Your task to perform on an android device: open app "Airtel Thanks" (install if not already installed) and enter user name: "acclaimed@inbox.com" and password: "dichotomize" Image 0: 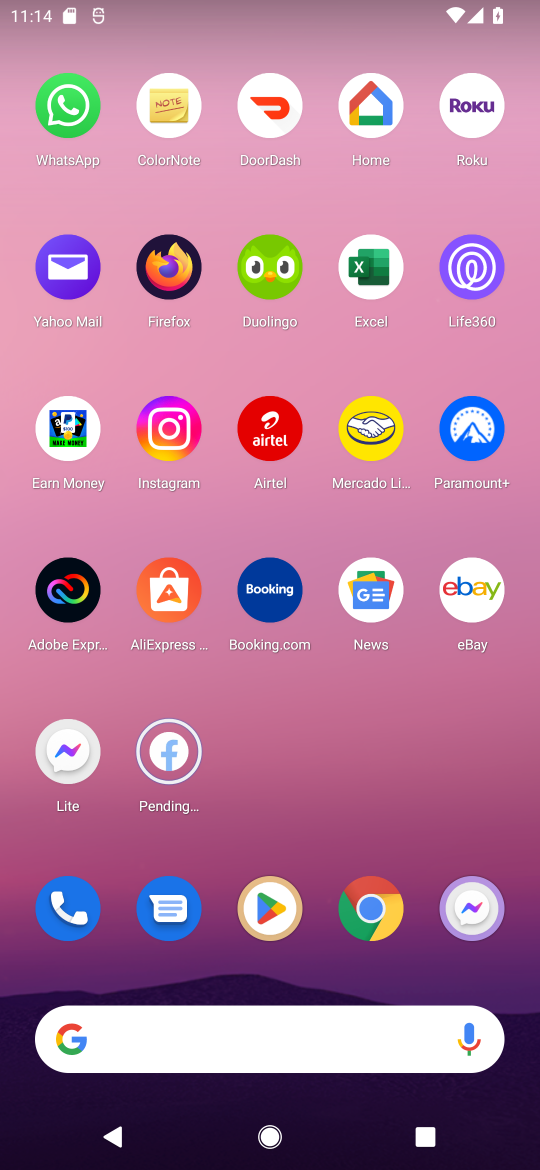
Step 0: click (271, 925)
Your task to perform on an android device: open app "Airtel Thanks" (install if not already installed) and enter user name: "acclaimed@inbox.com" and password: "dichotomize" Image 1: 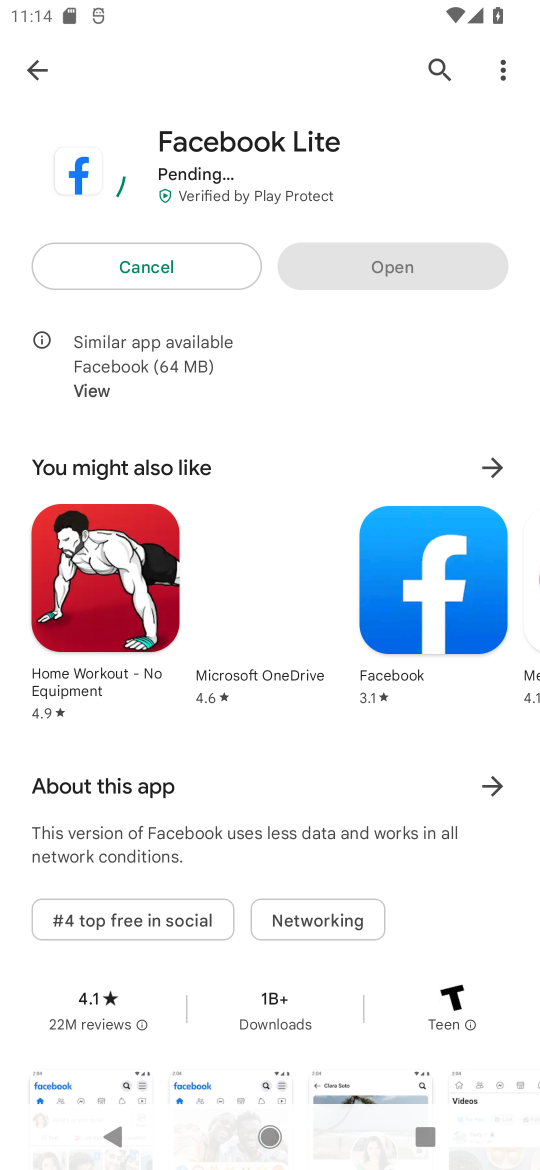
Step 1: press home button
Your task to perform on an android device: open app "Airtel Thanks" (install if not already installed) and enter user name: "acclaimed@inbox.com" and password: "dichotomize" Image 2: 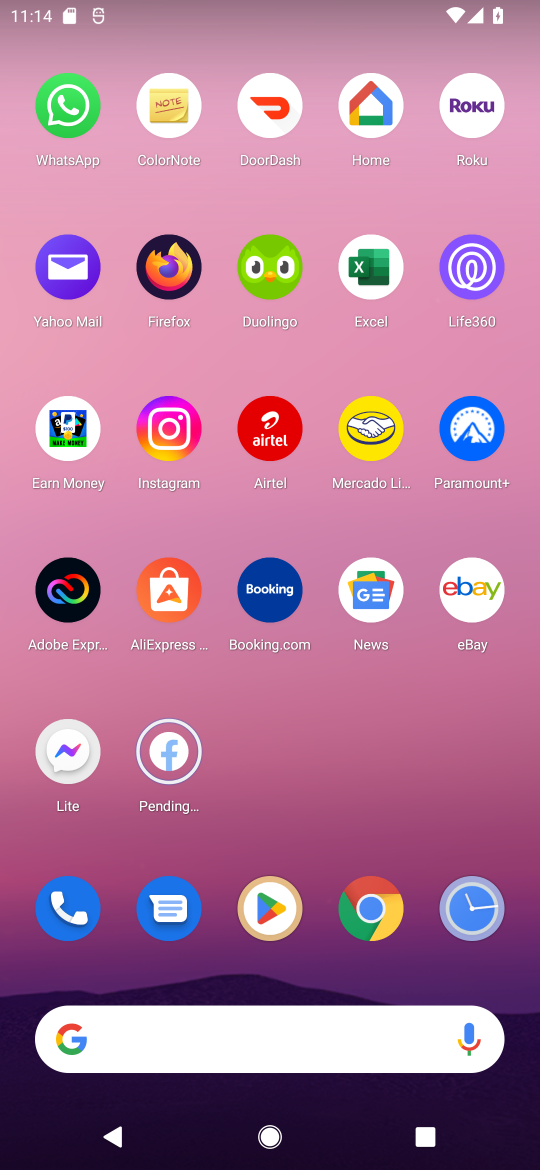
Step 2: click (250, 884)
Your task to perform on an android device: open app "Airtel Thanks" (install if not already installed) and enter user name: "acclaimed@inbox.com" and password: "dichotomize" Image 3: 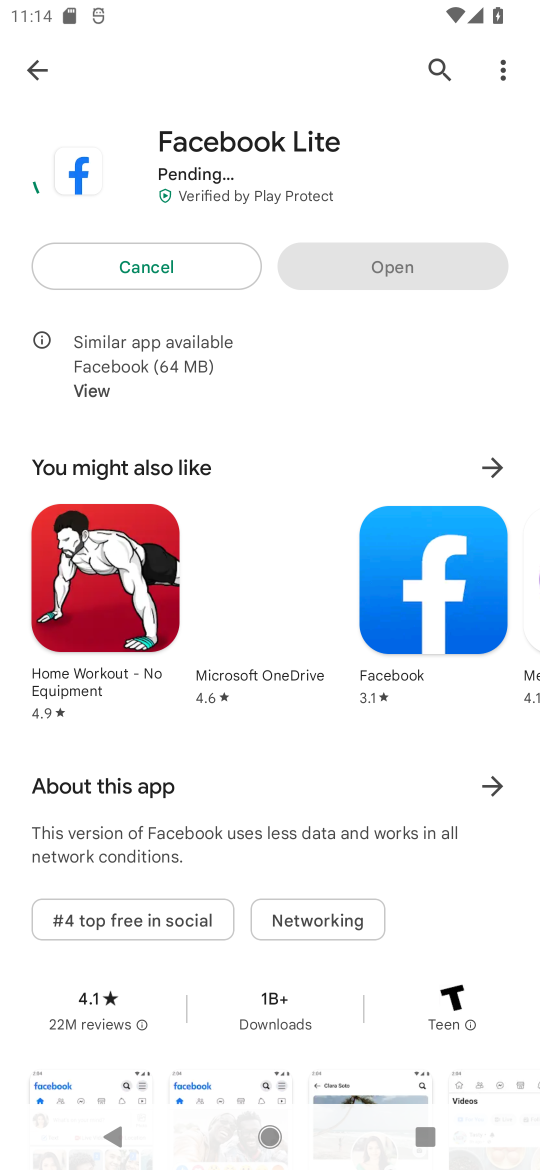
Step 3: click (29, 70)
Your task to perform on an android device: open app "Airtel Thanks" (install if not already installed) and enter user name: "acclaimed@inbox.com" and password: "dichotomize" Image 4: 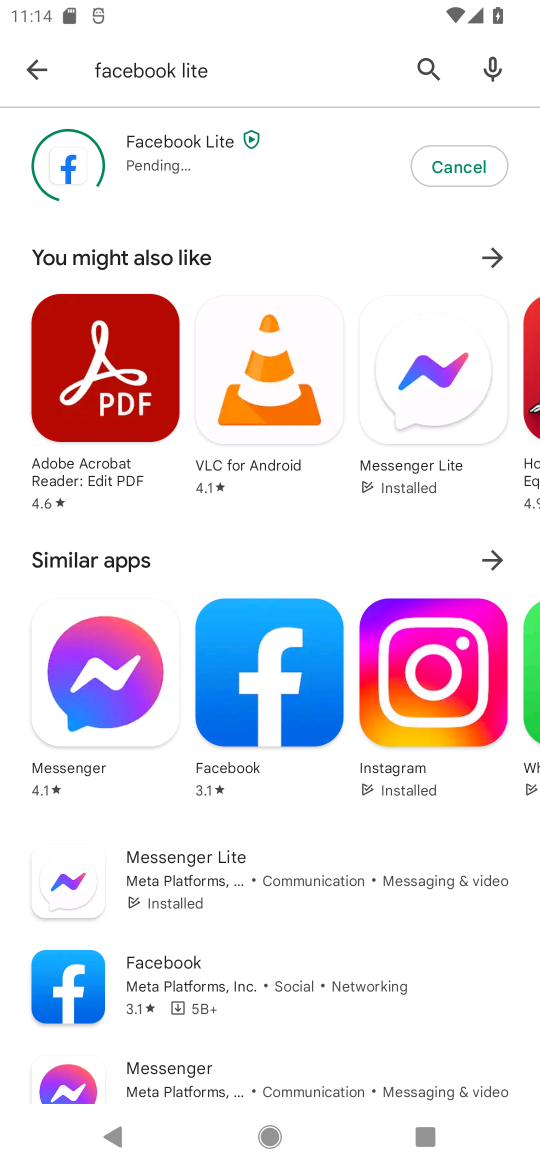
Step 4: click (424, 77)
Your task to perform on an android device: open app "Airtel Thanks" (install if not already installed) and enter user name: "acclaimed@inbox.com" and password: "dichotomize" Image 5: 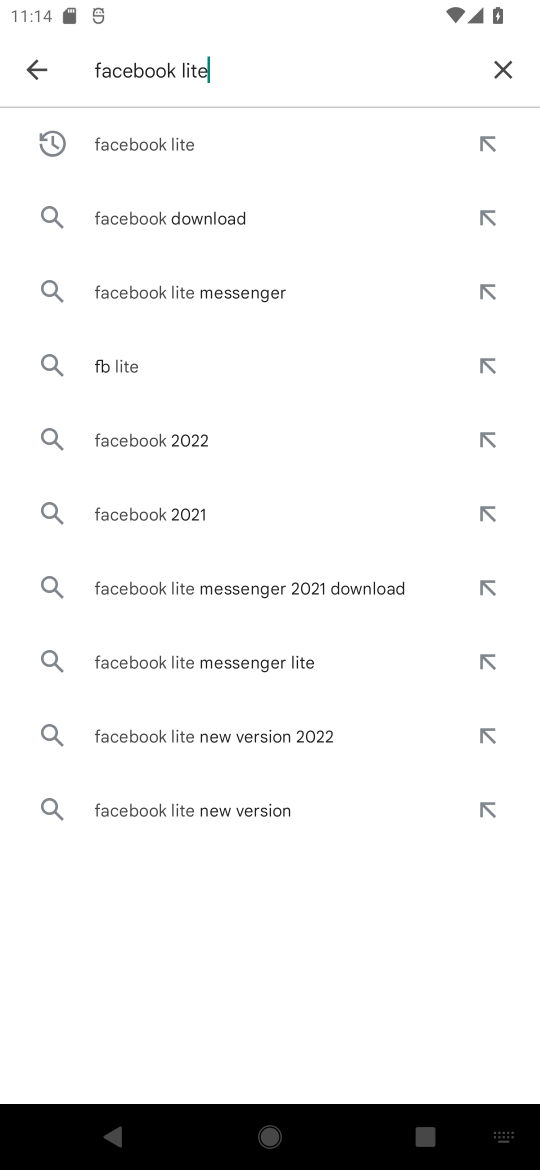
Step 5: click (500, 52)
Your task to perform on an android device: open app "Airtel Thanks" (install if not already installed) and enter user name: "acclaimed@inbox.com" and password: "dichotomize" Image 6: 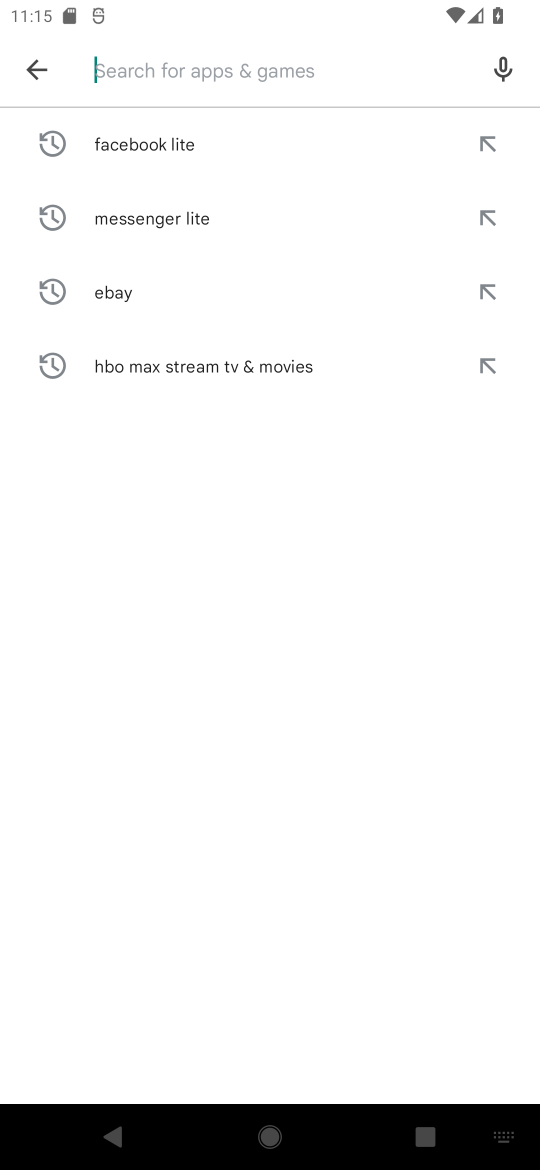
Step 6: type "Airtel Thanks"
Your task to perform on an android device: open app "Airtel Thanks" (install if not already installed) and enter user name: "acclaimed@inbox.com" and password: "dichotomize" Image 7: 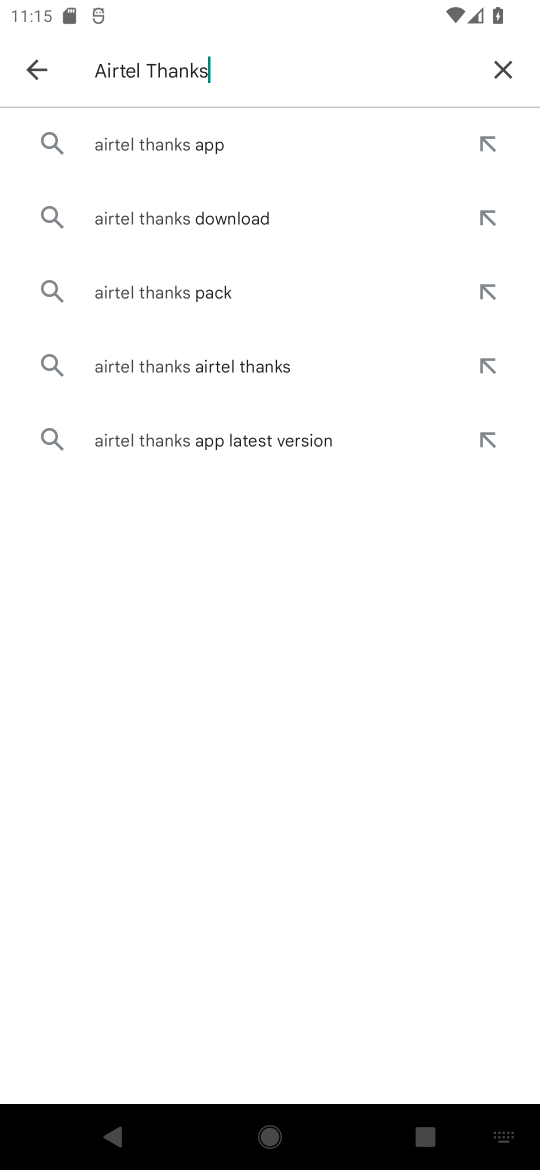
Step 7: click (159, 145)
Your task to perform on an android device: open app "Airtel Thanks" (install if not already installed) and enter user name: "acclaimed@inbox.com" and password: "dichotomize" Image 8: 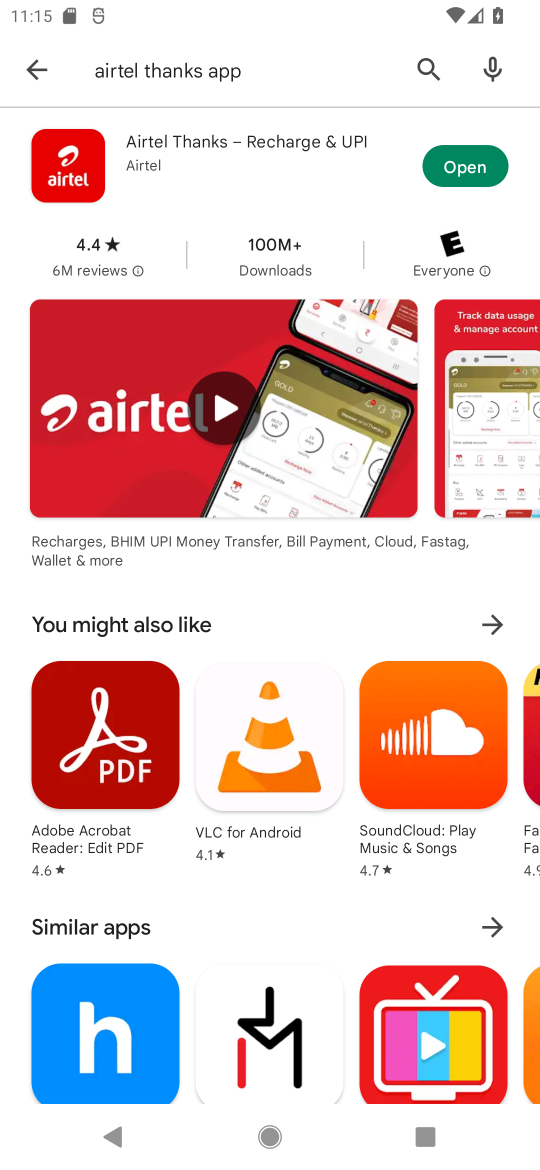
Step 8: click (467, 153)
Your task to perform on an android device: open app "Airtel Thanks" (install if not already installed) and enter user name: "acclaimed@inbox.com" and password: "dichotomize" Image 9: 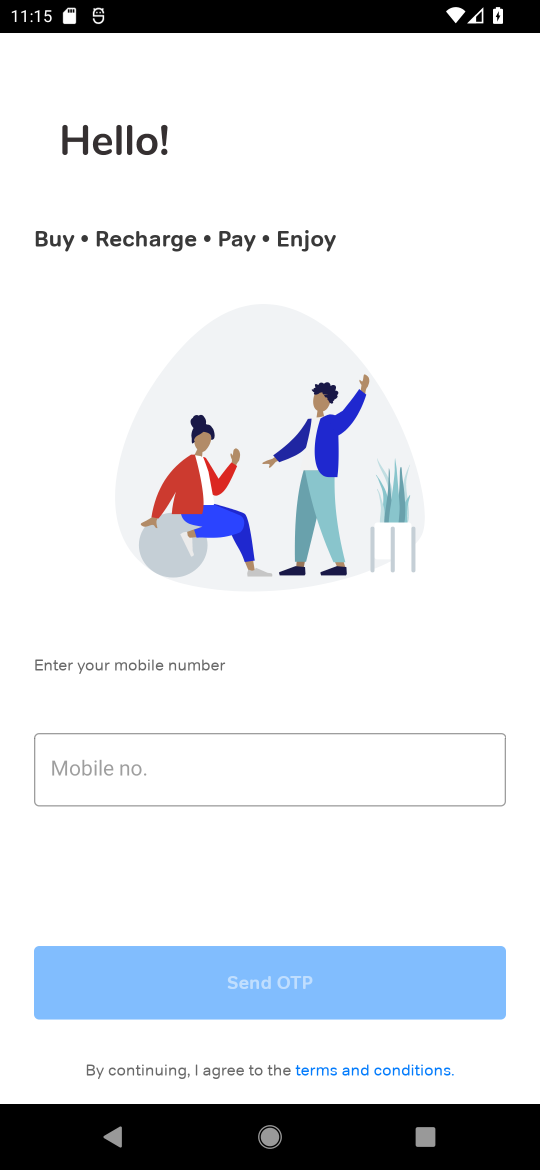
Step 9: task complete